Your task to perform on an android device: Open my contact list Image 0: 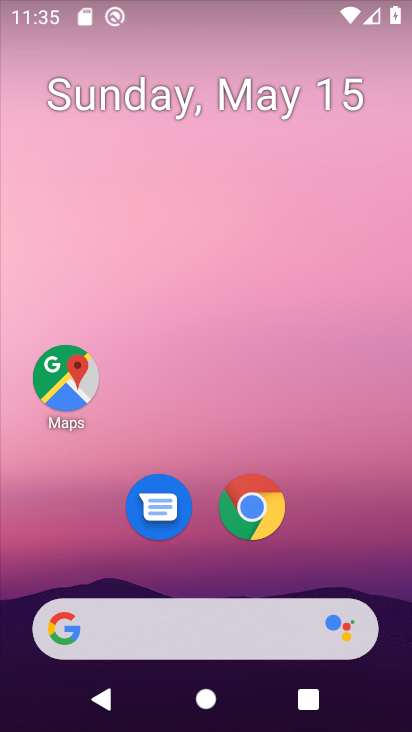
Step 0: drag from (331, 559) to (360, 133)
Your task to perform on an android device: Open my contact list Image 1: 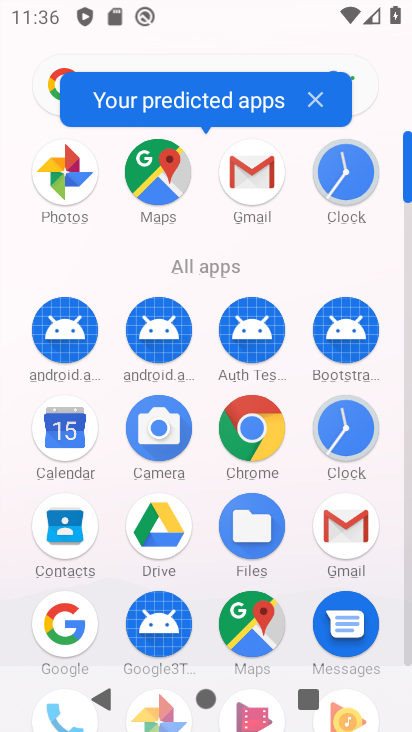
Step 1: click (79, 530)
Your task to perform on an android device: Open my contact list Image 2: 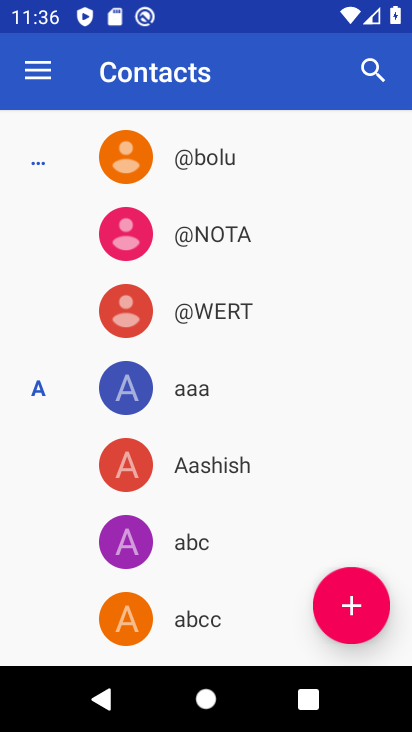
Step 2: task complete